Your task to perform on an android device: turn on the 24-hour format for clock Image 0: 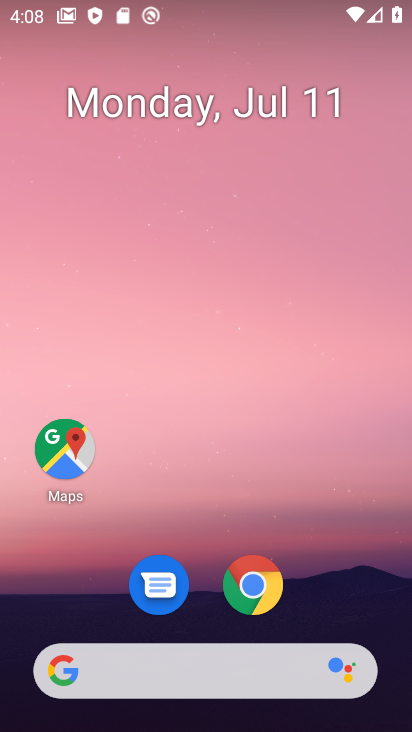
Step 0: drag from (302, 535) to (253, 22)
Your task to perform on an android device: turn on the 24-hour format for clock Image 1: 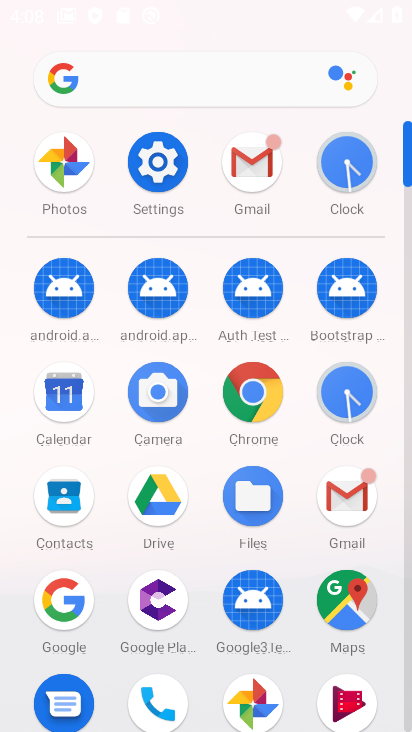
Step 1: click (341, 172)
Your task to perform on an android device: turn on the 24-hour format for clock Image 2: 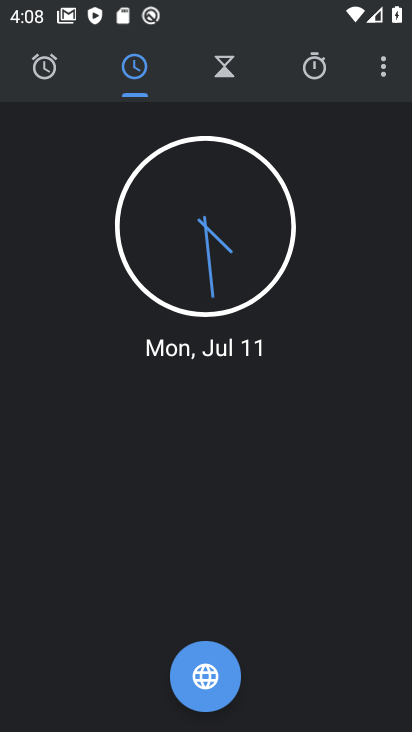
Step 2: click (380, 64)
Your task to perform on an android device: turn on the 24-hour format for clock Image 3: 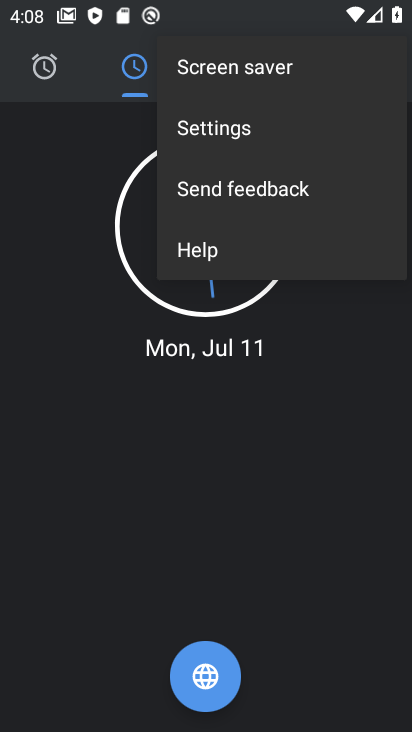
Step 3: click (272, 135)
Your task to perform on an android device: turn on the 24-hour format for clock Image 4: 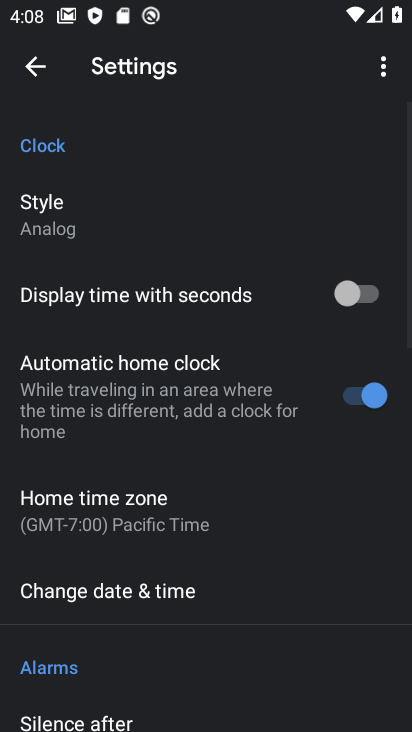
Step 4: click (273, 596)
Your task to perform on an android device: turn on the 24-hour format for clock Image 5: 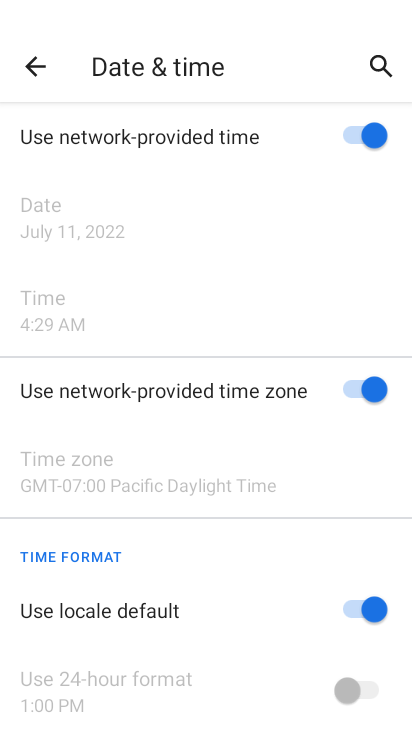
Step 5: click (350, 605)
Your task to perform on an android device: turn on the 24-hour format for clock Image 6: 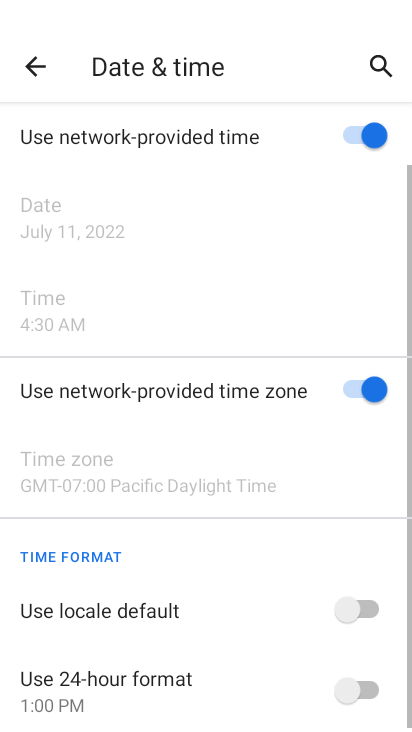
Step 6: click (375, 687)
Your task to perform on an android device: turn on the 24-hour format for clock Image 7: 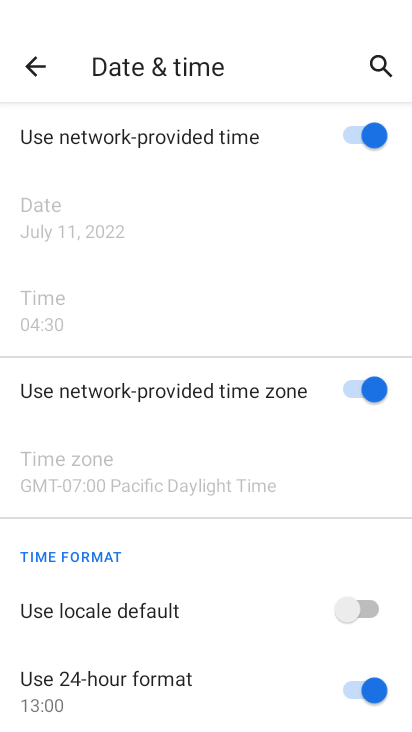
Step 7: task complete